Your task to perform on an android device: Open wifi settings Image 0: 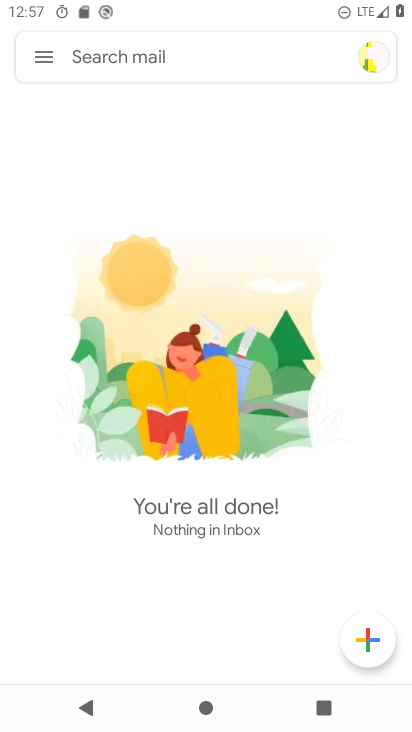
Step 0: press home button
Your task to perform on an android device: Open wifi settings Image 1: 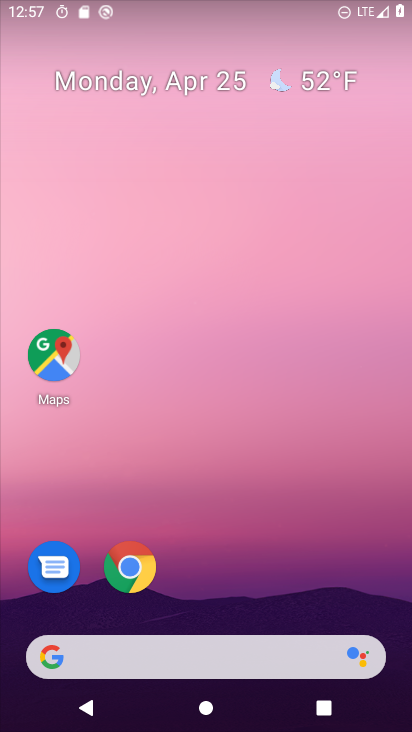
Step 1: drag from (272, 509) to (271, 86)
Your task to perform on an android device: Open wifi settings Image 2: 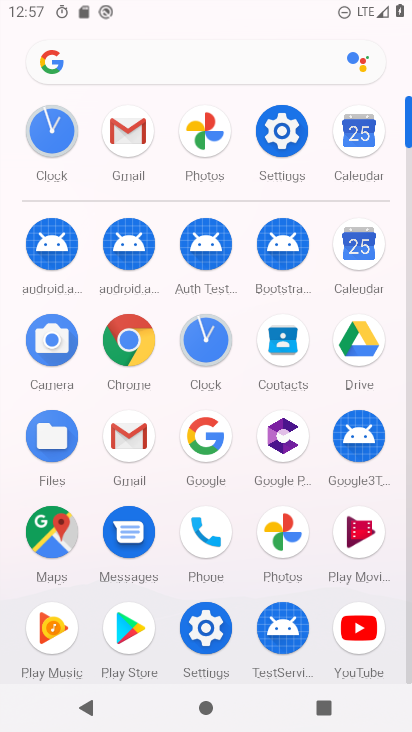
Step 2: click (281, 134)
Your task to perform on an android device: Open wifi settings Image 3: 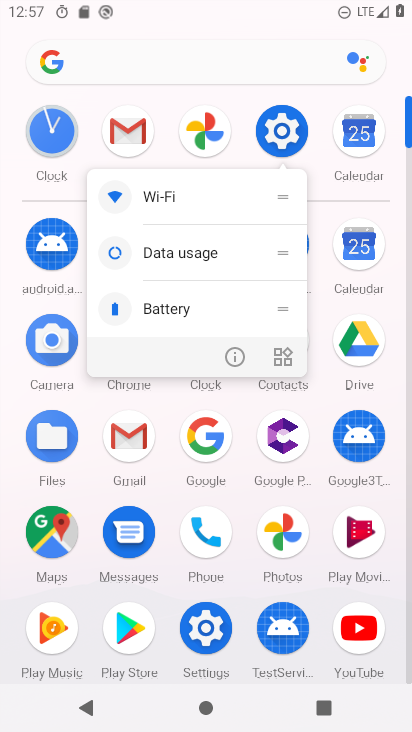
Step 3: click (281, 137)
Your task to perform on an android device: Open wifi settings Image 4: 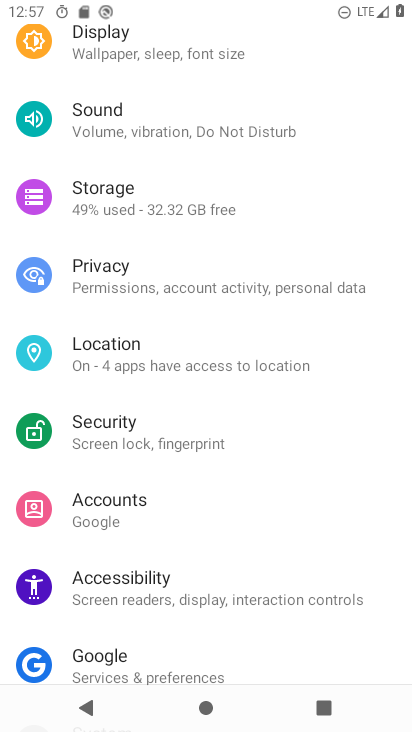
Step 4: drag from (276, 151) to (231, 666)
Your task to perform on an android device: Open wifi settings Image 5: 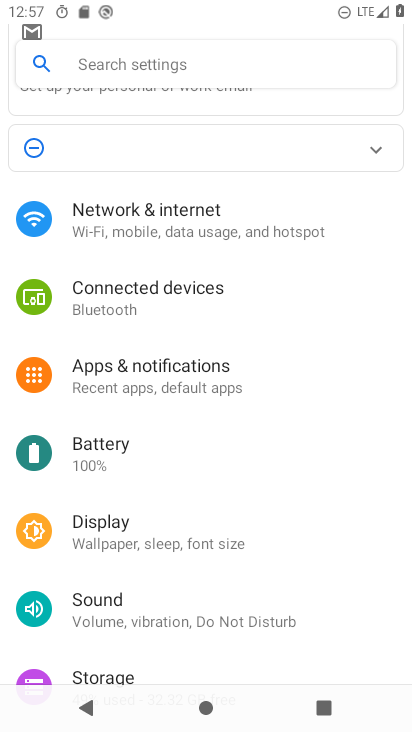
Step 5: click (222, 221)
Your task to perform on an android device: Open wifi settings Image 6: 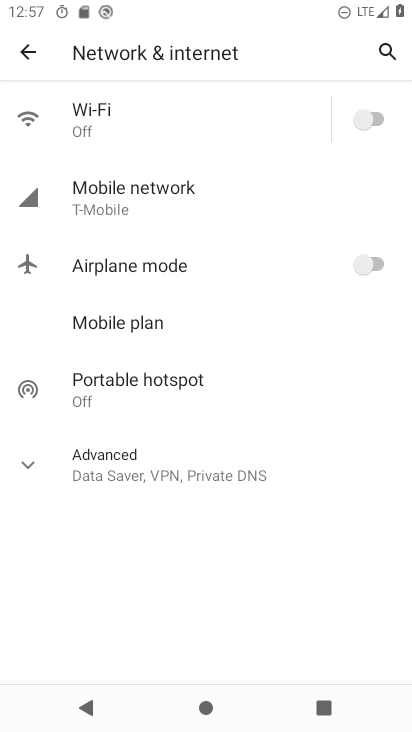
Step 6: click (217, 121)
Your task to perform on an android device: Open wifi settings Image 7: 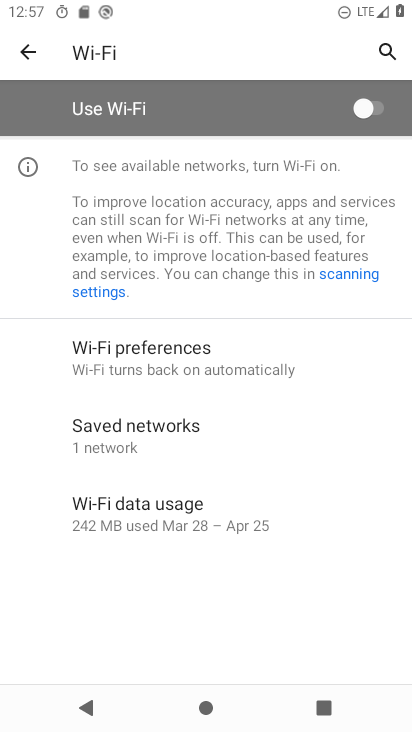
Step 7: task complete